Your task to perform on an android device: What is the recent news? Image 0: 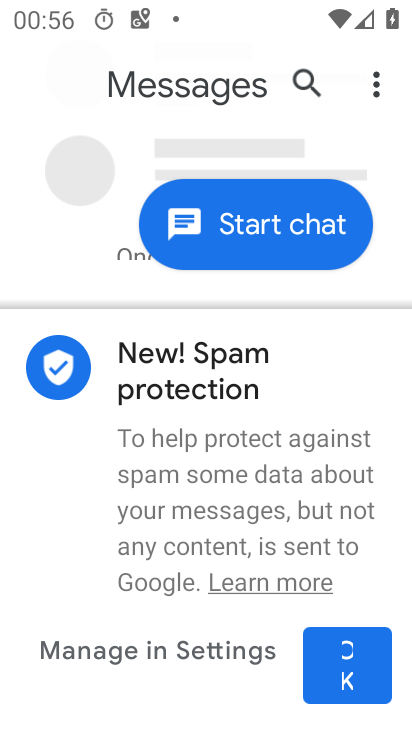
Step 0: press home button
Your task to perform on an android device: What is the recent news? Image 1: 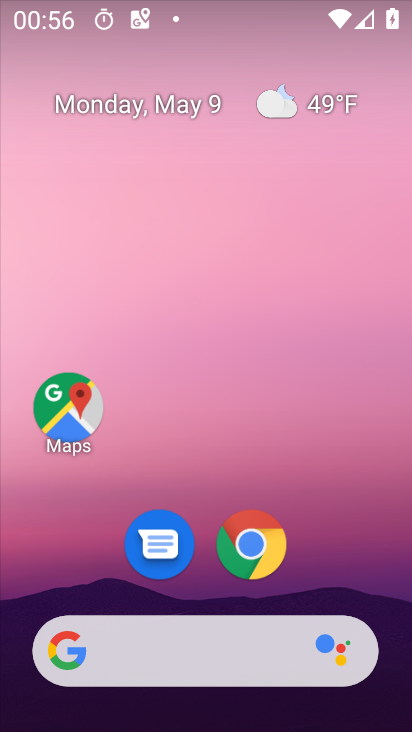
Step 1: drag from (291, 584) to (259, 2)
Your task to perform on an android device: What is the recent news? Image 2: 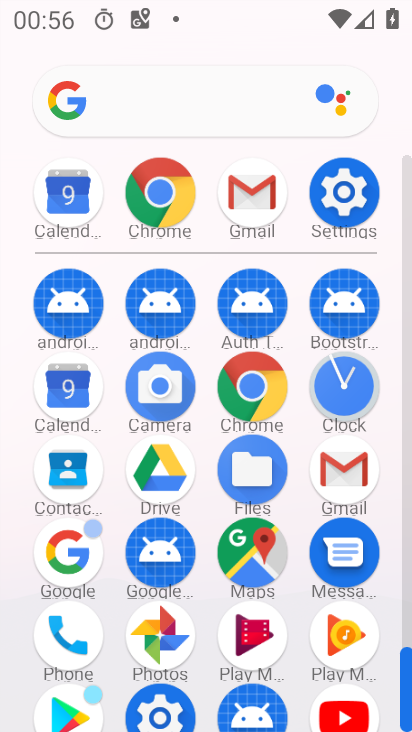
Step 2: click (270, 389)
Your task to perform on an android device: What is the recent news? Image 3: 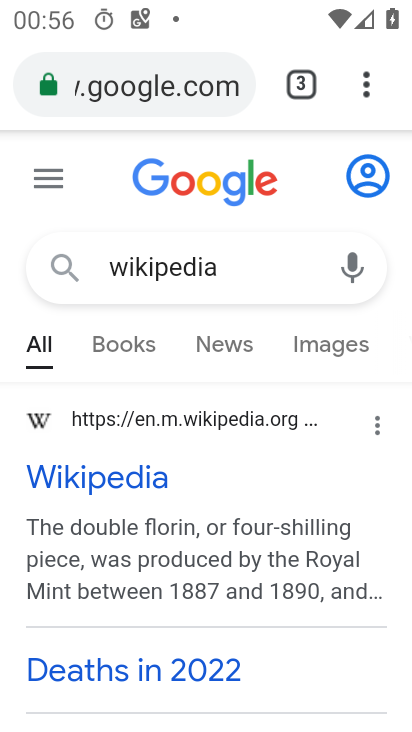
Step 3: click (196, 82)
Your task to perform on an android device: What is the recent news? Image 4: 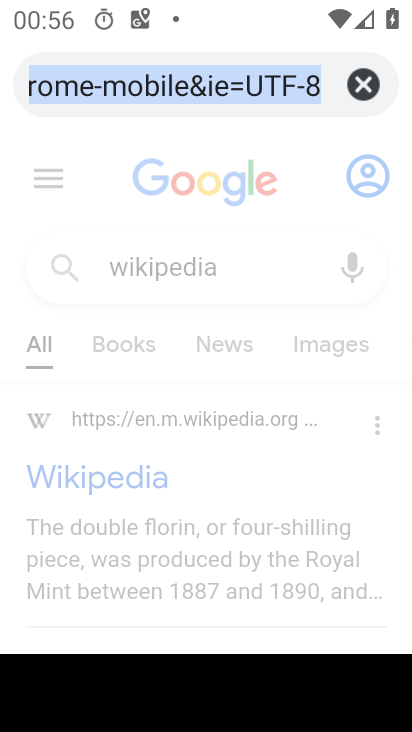
Step 4: click (351, 81)
Your task to perform on an android device: What is the recent news? Image 5: 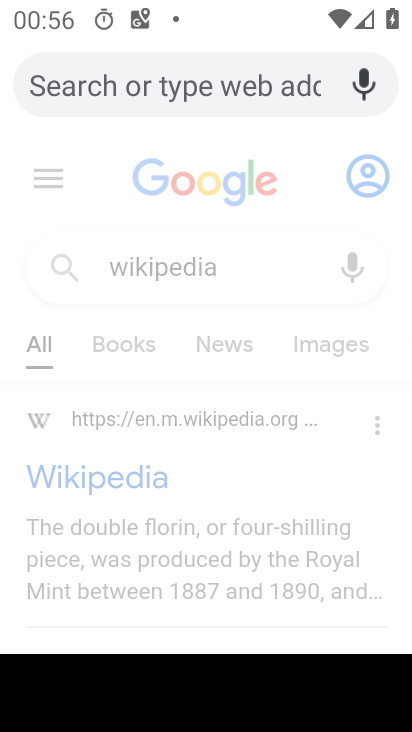
Step 5: type "recent news"
Your task to perform on an android device: What is the recent news? Image 6: 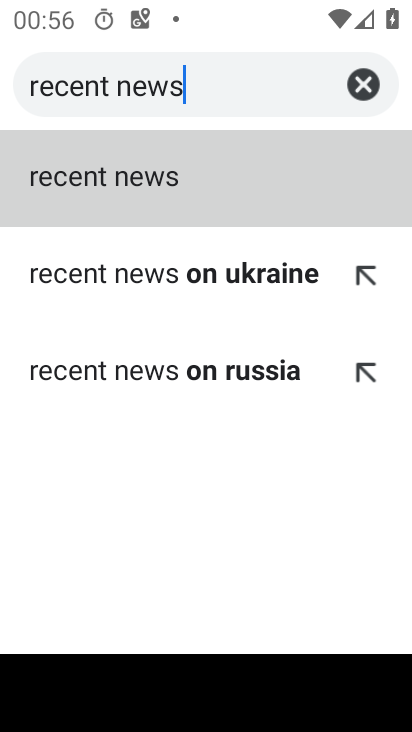
Step 6: click (239, 192)
Your task to perform on an android device: What is the recent news? Image 7: 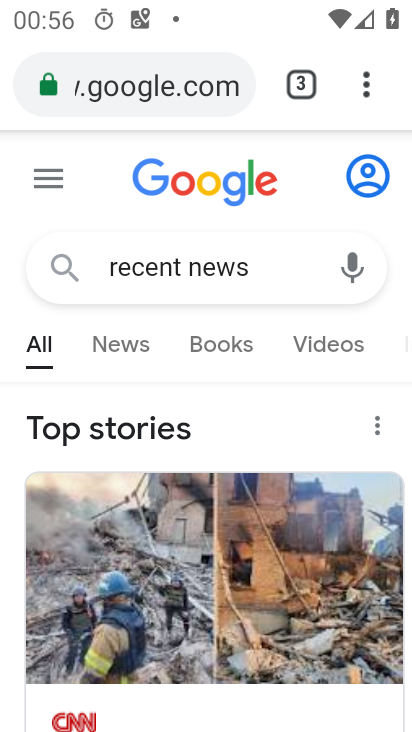
Step 7: task complete